Your task to perform on an android device: turn on translation in the chrome app Image 0: 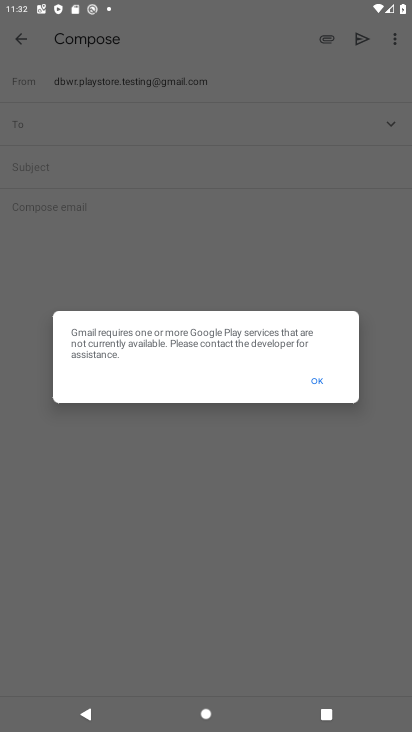
Step 0: press home button
Your task to perform on an android device: turn on translation in the chrome app Image 1: 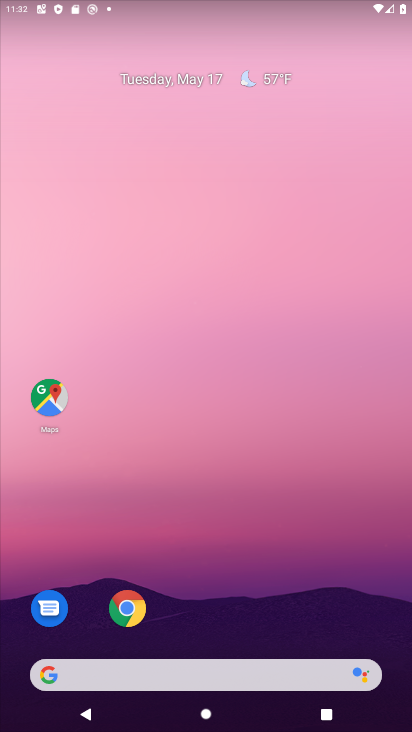
Step 1: click (130, 605)
Your task to perform on an android device: turn on translation in the chrome app Image 2: 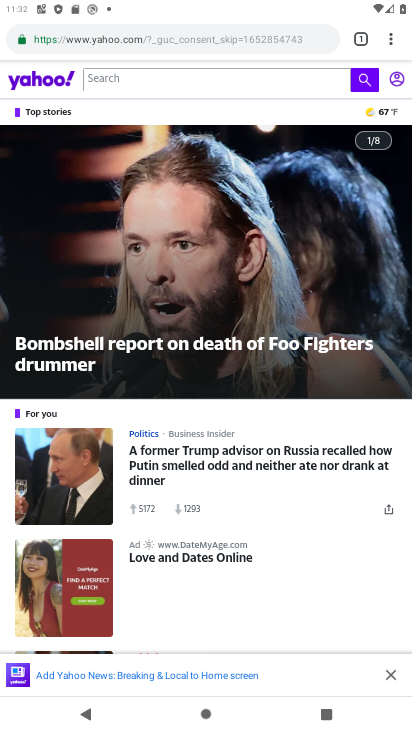
Step 2: click (388, 38)
Your task to perform on an android device: turn on translation in the chrome app Image 3: 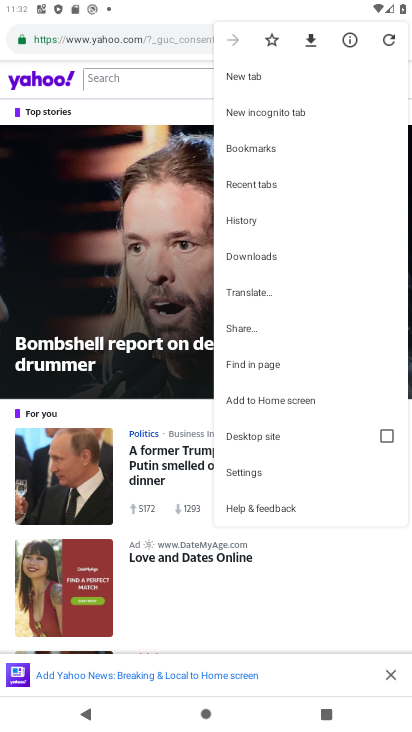
Step 3: click (242, 470)
Your task to perform on an android device: turn on translation in the chrome app Image 4: 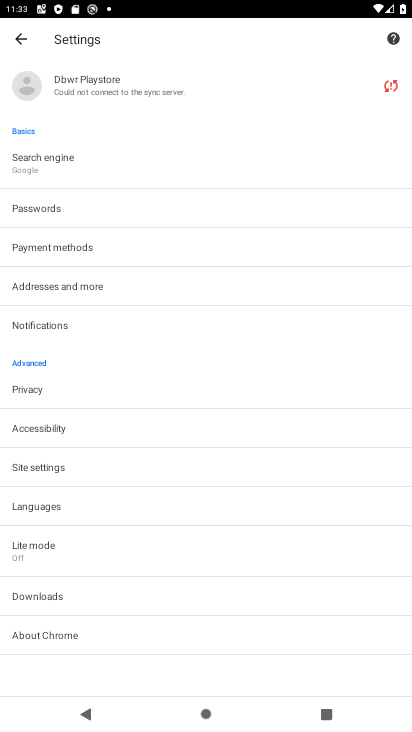
Step 4: click (40, 507)
Your task to perform on an android device: turn on translation in the chrome app Image 5: 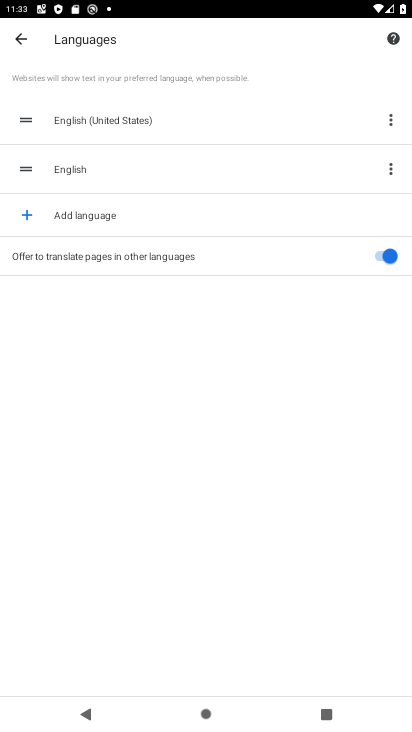
Step 5: task complete